Your task to perform on an android device: Go to Amazon Image 0: 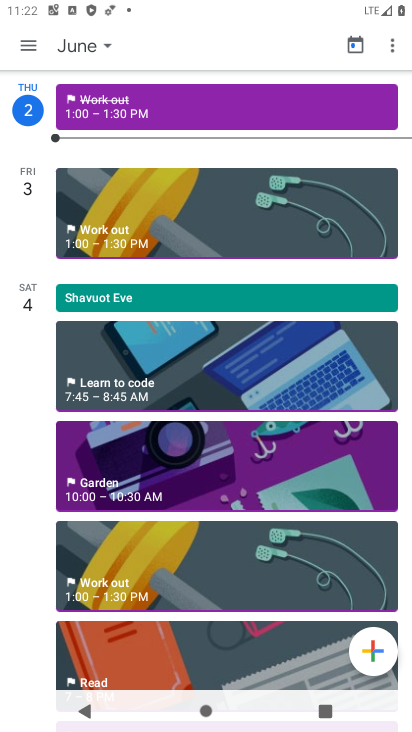
Step 0: press home button
Your task to perform on an android device: Go to Amazon Image 1: 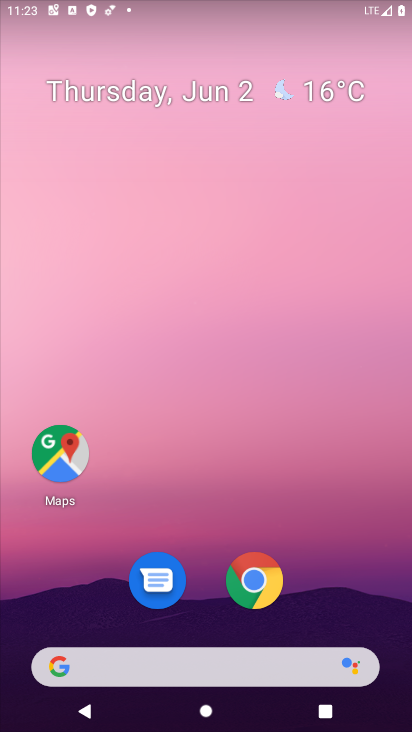
Step 1: click (270, 585)
Your task to perform on an android device: Go to Amazon Image 2: 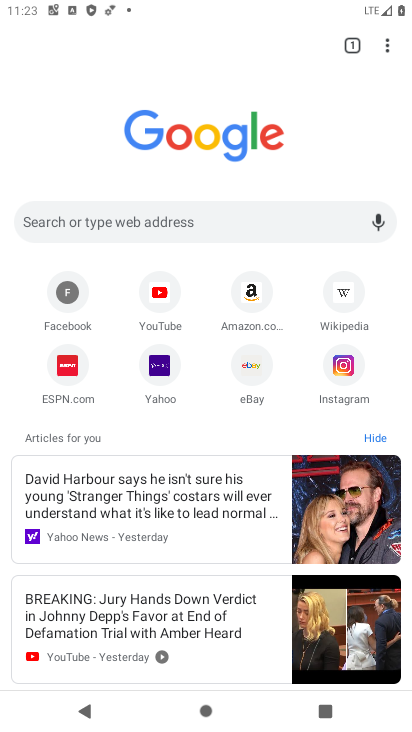
Step 2: click (270, 308)
Your task to perform on an android device: Go to Amazon Image 3: 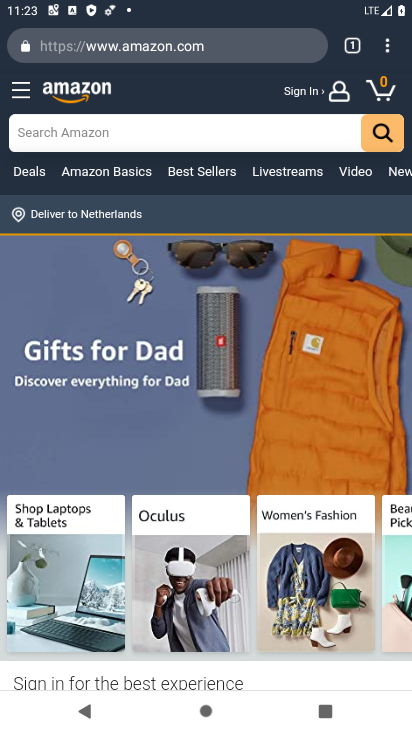
Step 3: task complete